Your task to perform on an android device: open the mobile data screen to see how much data has been used Image 0: 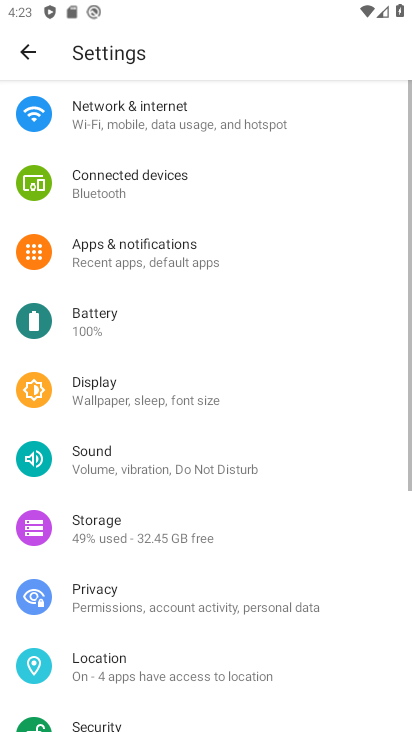
Step 0: press home button
Your task to perform on an android device: open the mobile data screen to see how much data has been used Image 1: 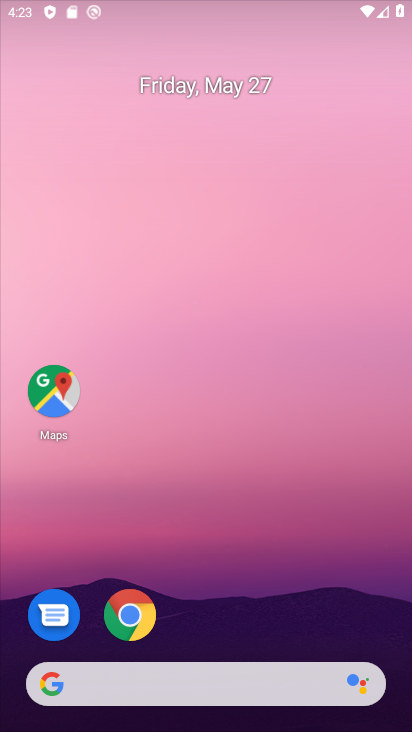
Step 1: drag from (295, 537) to (123, 84)
Your task to perform on an android device: open the mobile data screen to see how much data has been used Image 2: 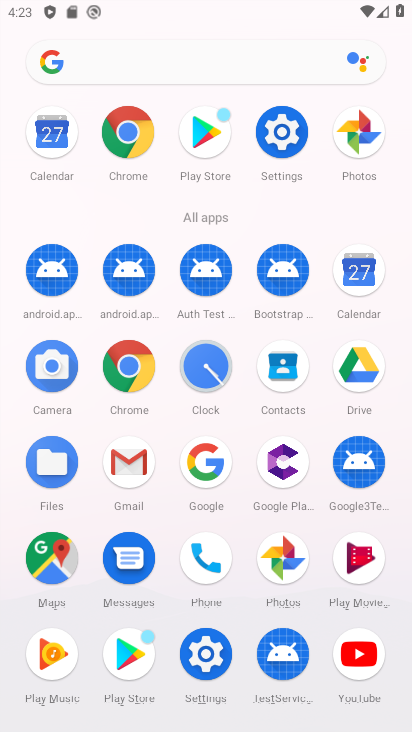
Step 2: click (279, 146)
Your task to perform on an android device: open the mobile data screen to see how much data has been used Image 3: 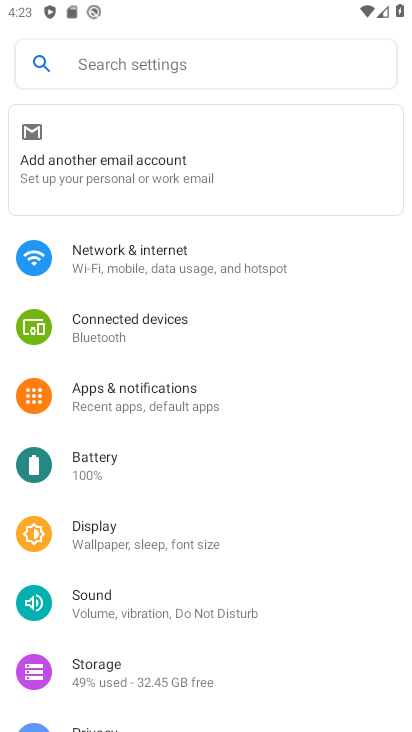
Step 3: click (201, 257)
Your task to perform on an android device: open the mobile data screen to see how much data has been used Image 4: 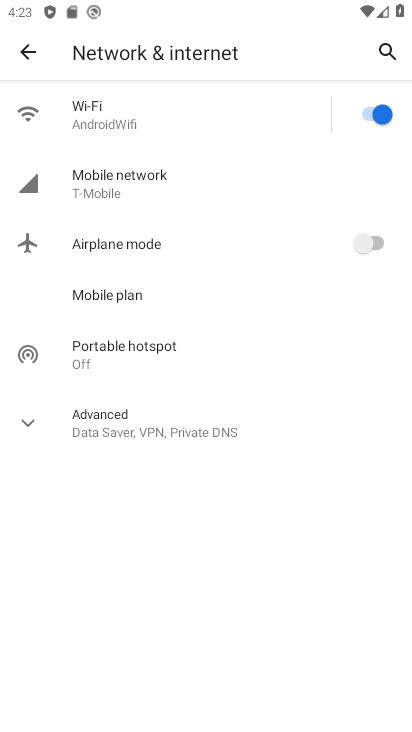
Step 4: click (183, 177)
Your task to perform on an android device: open the mobile data screen to see how much data has been used Image 5: 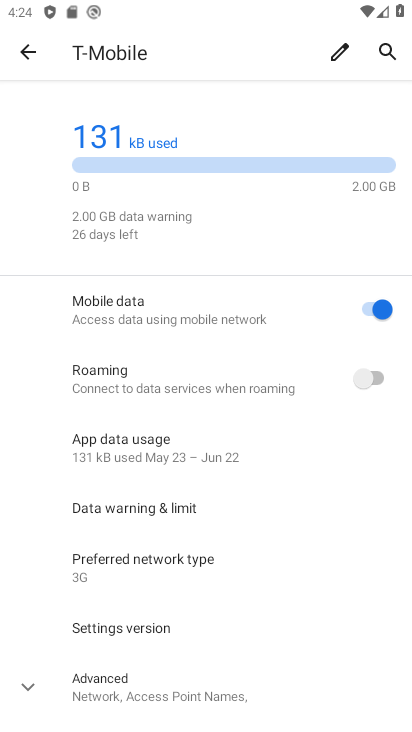
Step 5: task complete